Your task to perform on an android device: Open Yahoo.com Image 0: 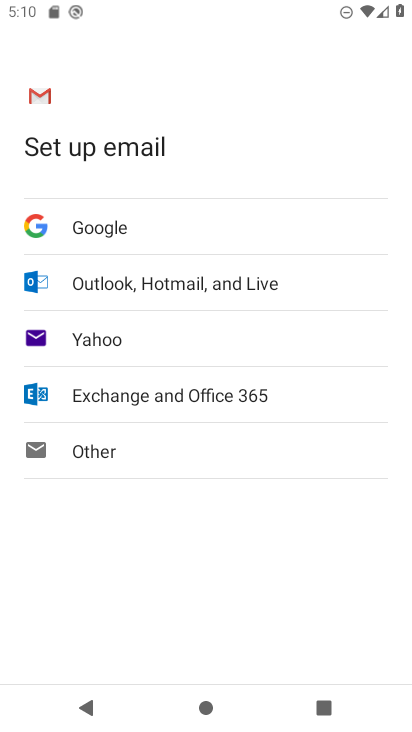
Step 0: press back button
Your task to perform on an android device: Open Yahoo.com Image 1: 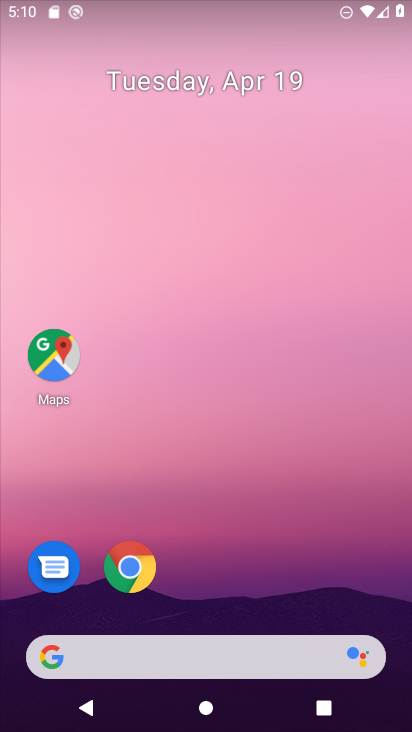
Step 1: drag from (211, 519) to (137, 39)
Your task to perform on an android device: Open Yahoo.com Image 2: 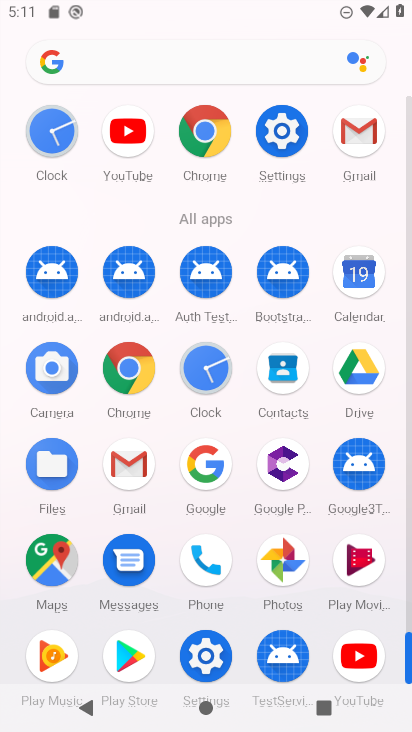
Step 2: click (190, 127)
Your task to perform on an android device: Open Yahoo.com Image 3: 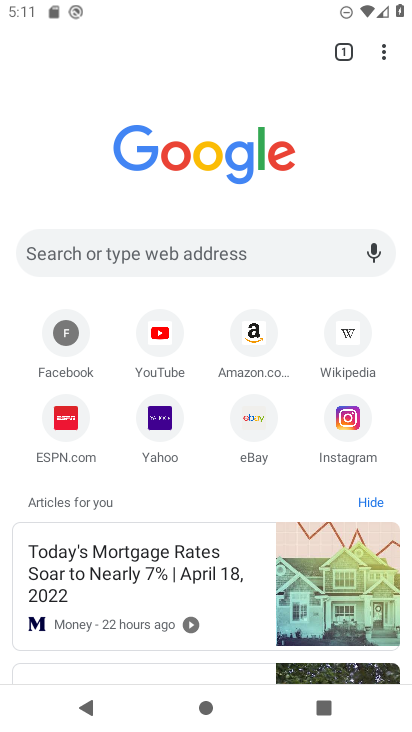
Step 3: click (163, 420)
Your task to perform on an android device: Open Yahoo.com Image 4: 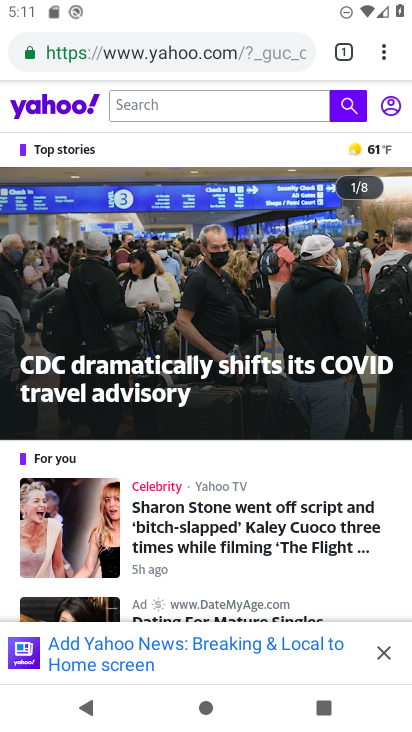
Step 4: task complete